Your task to perform on an android device: See recent photos Image 0: 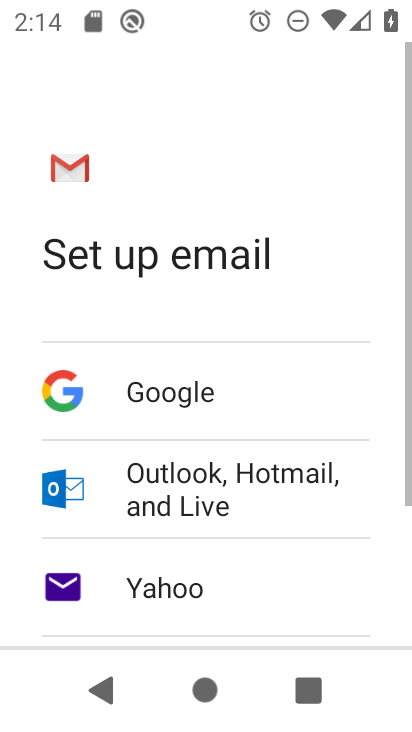
Step 0: press home button
Your task to perform on an android device: See recent photos Image 1: 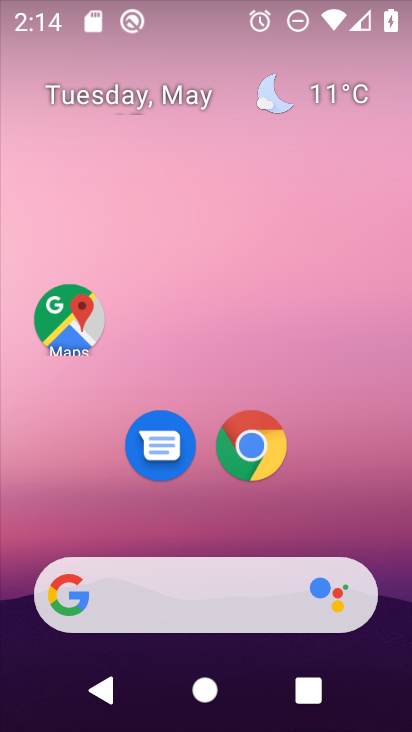
Step 1: drag from (358, 458) to (312, 144)
Your task to perform on an android device: See recent photos Image 2: 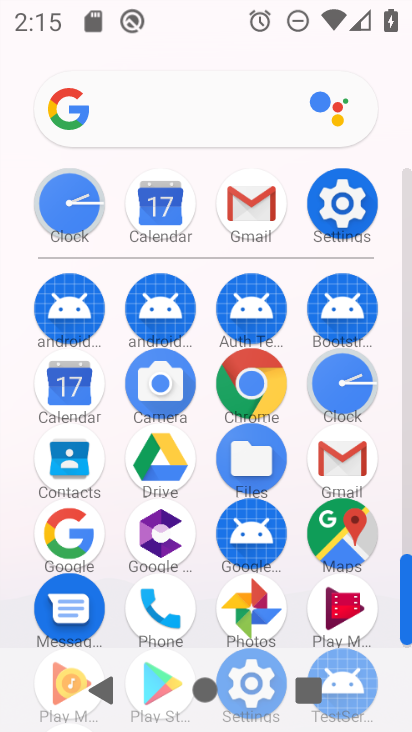
Step 2: click (242, 618)
Your task to perform on an android device: See recent photos Image 3: 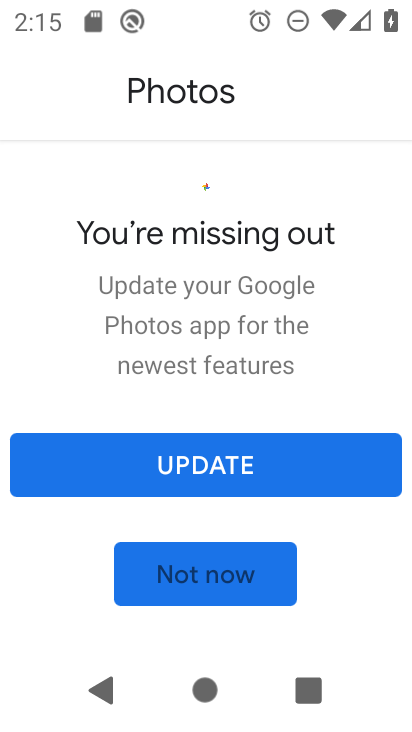
Step 3: click (213, 574)
Your task to perform on an android device: See recent photos Image 4: 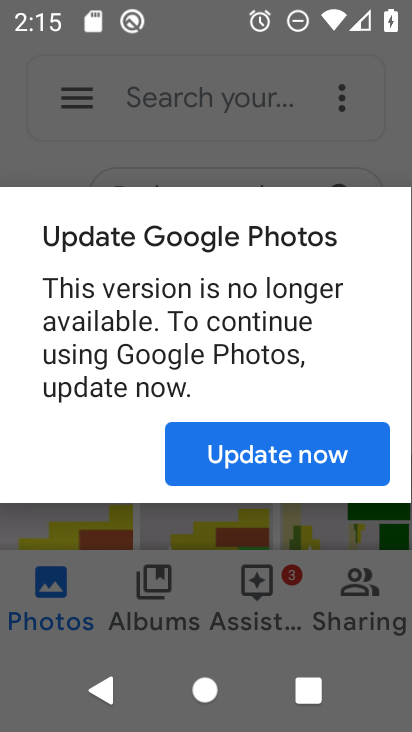
Step 4: click (239, 457)
Your task to perform on an android device: See recent photos Image 5: 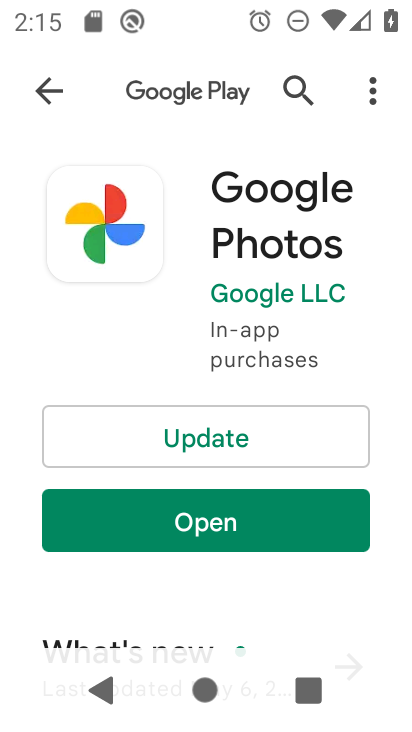
Step 5: click (221, 512)
Your task to perform on an android device: See recent photos Image 6: 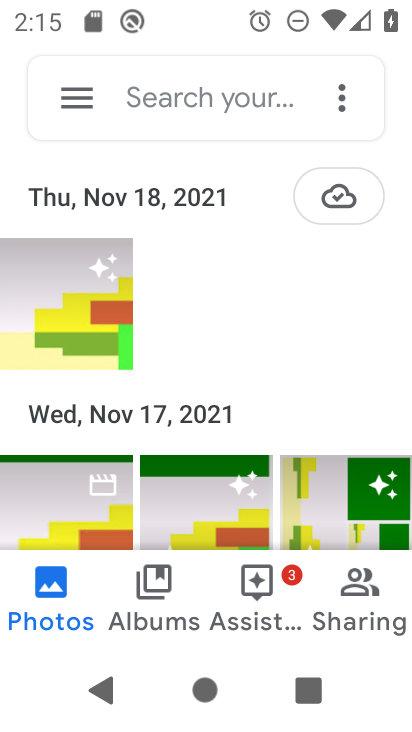
Step 6: task complete